Your task to perform on an android device: Is it going to rain today? Image 0: 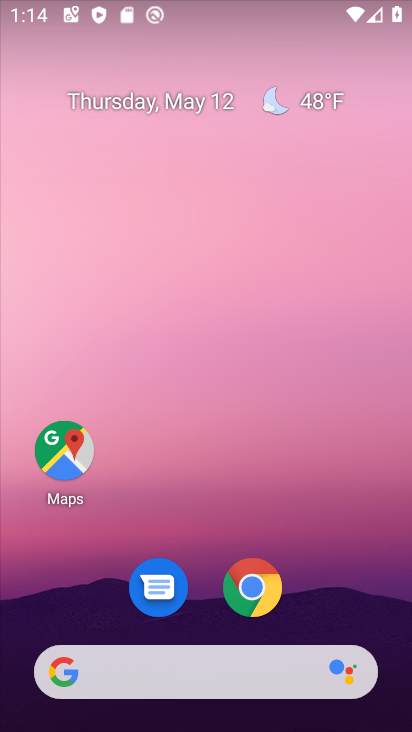
Step 0: drag from (302, 492) to (260, 52)
Your task to perform on an android device: Is it going to rain today? Image 1: 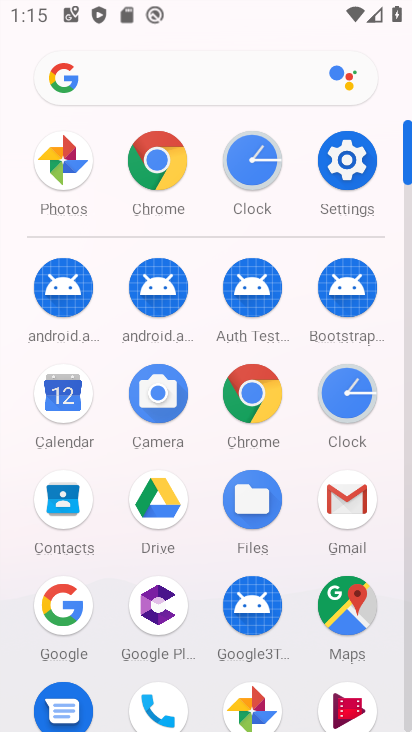
Step 1: drag from (151, 554) to (137, 246)
Your task to perform on an android device: Is it going to rain today? Image 2: 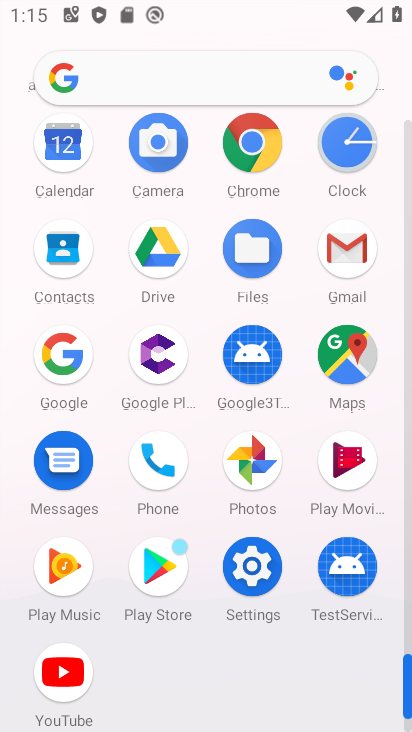
Step 2: click (64, 378)
Your task to perform on an android device: Is it going to rain today? Image 3: 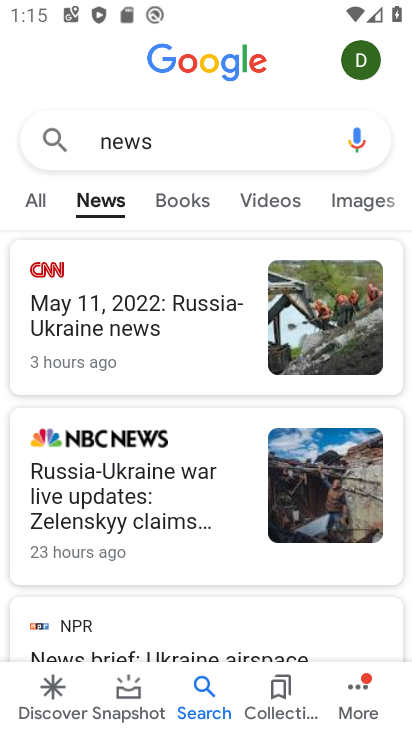
Step 3: click (305, 140)
Your task to perform on an android device: Is it going to rain today? Image 4: 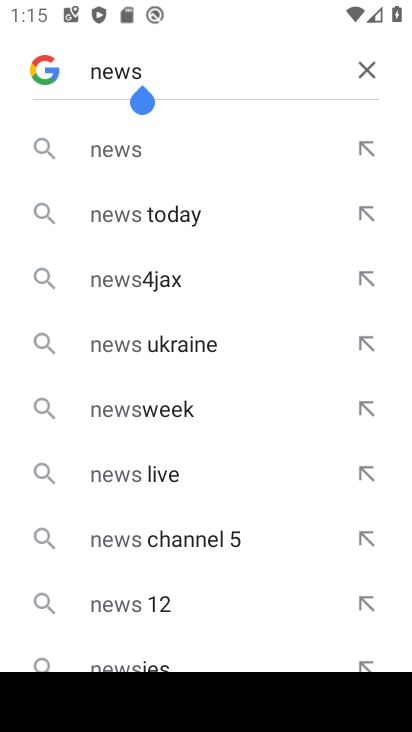
Step 4: click (369, 79)
Your task to perform on an android device: Is it going to rain today? Image 5: 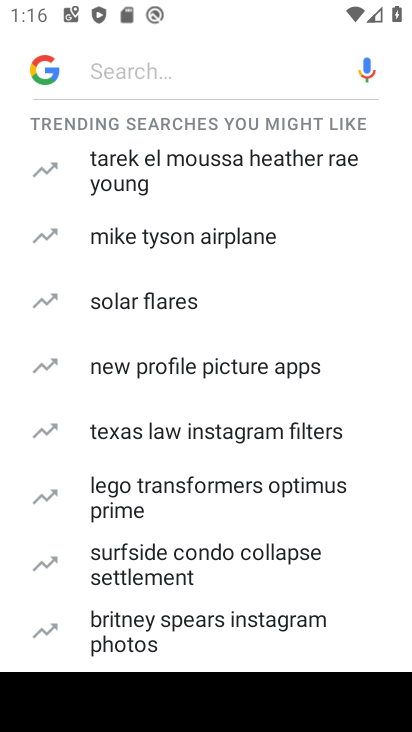
Step 5: type "weather"
Your task to perform on an android device: Is it going to rain today? Image 6: 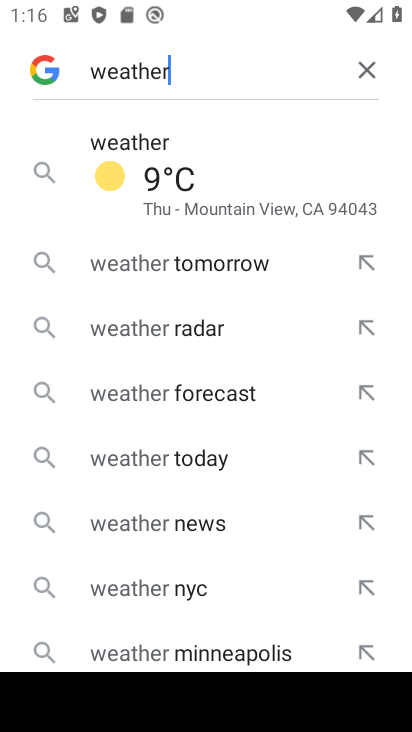
Step 6: click (265, 195)
Your task to perform on an android device: Is it going to rain today? Image 7: 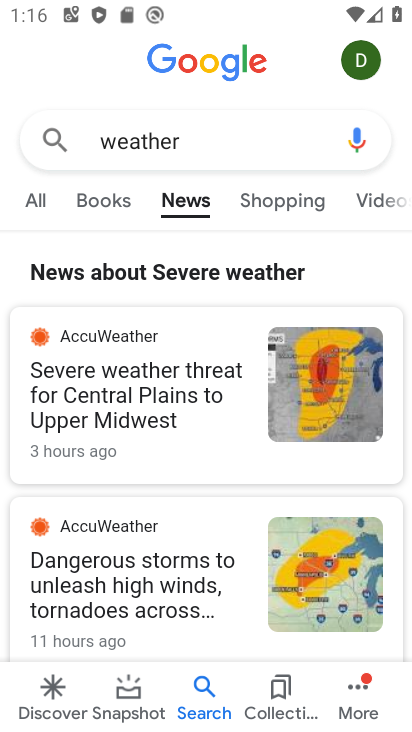
Step 7: click (45, 197)
Your task to perform on an android device: Is it going to rain today? Image 8: 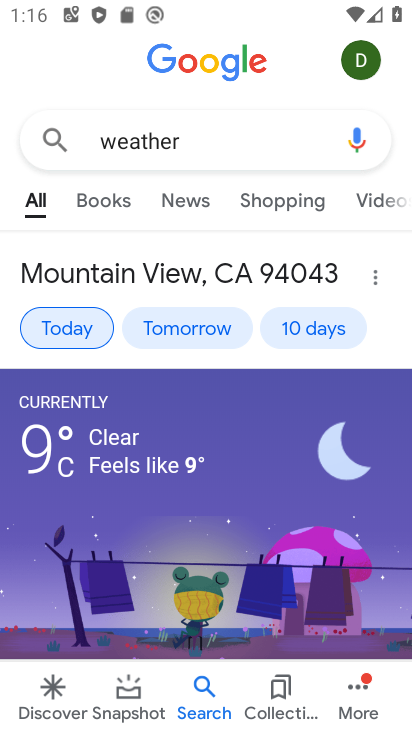
Step 8: task complete